Your task to perform on an android device: move an email to a new category in the gmail app Image 0: 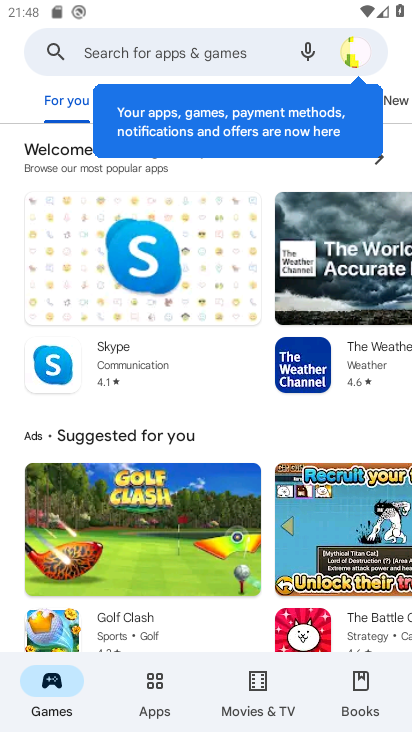
Step 0: press home button
Your task to perform on an android device: move an email to a new category in the gmail app Image 1: 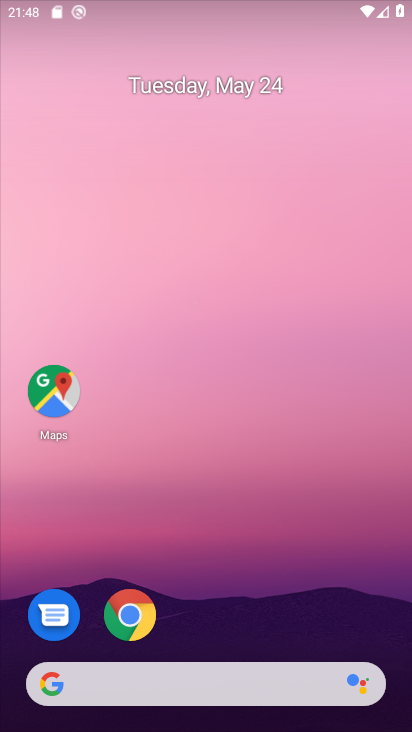
Step 1: drag from (215, 588) to (241, 258)
Your task to perform on an android device: move an email to a new category in the gmail app Image 2: 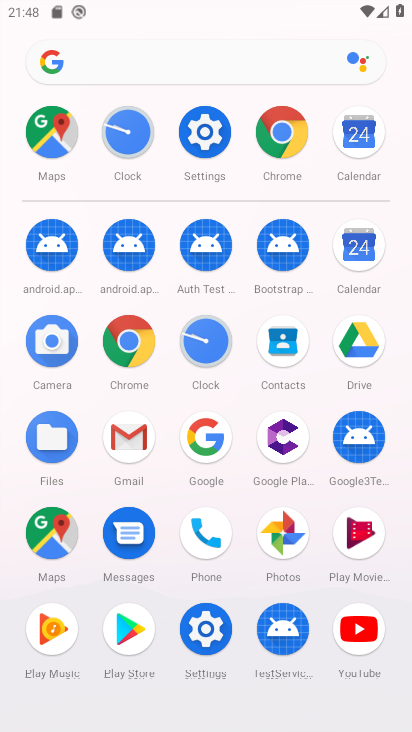
Step 2: click (142, 437)
Your task to perform on an android device: move an email to a new category in the gmail app Image 3: 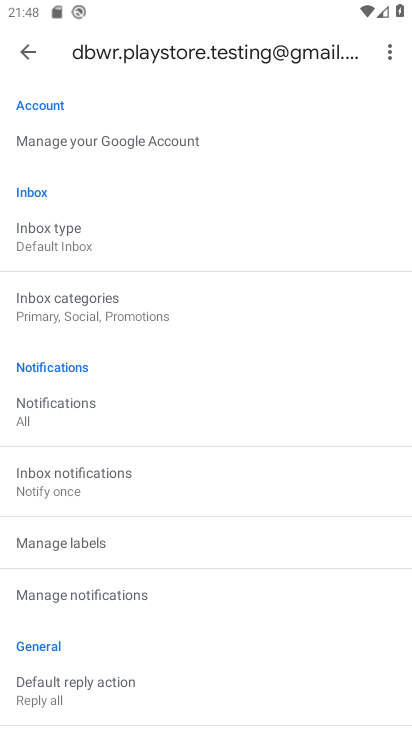
Step 3: click (20, 60)
Your task to perform on an android device: move an email to a new category in the gmail app Image 4: 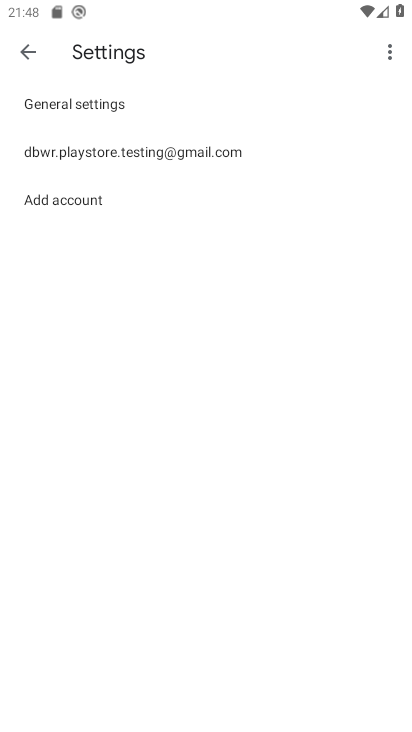
Step 4: click (18, 56)
Your task to perform on an android device: move an email to a new category in the gmail app Image 5: 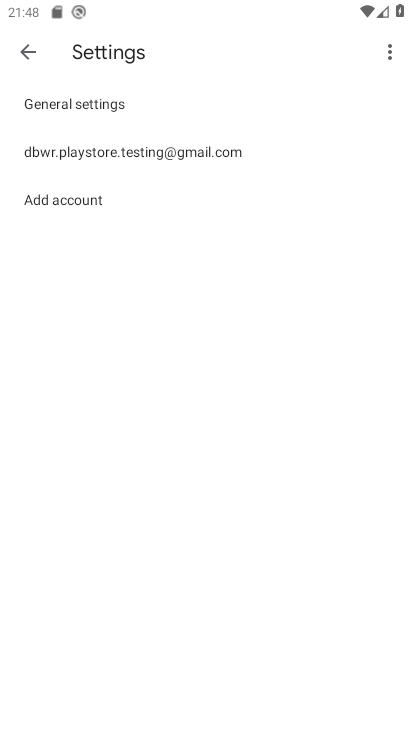
Step 5: click (18, 54)
Your task to perform on an android device: move an email to a new category in the gmail app Image 6: 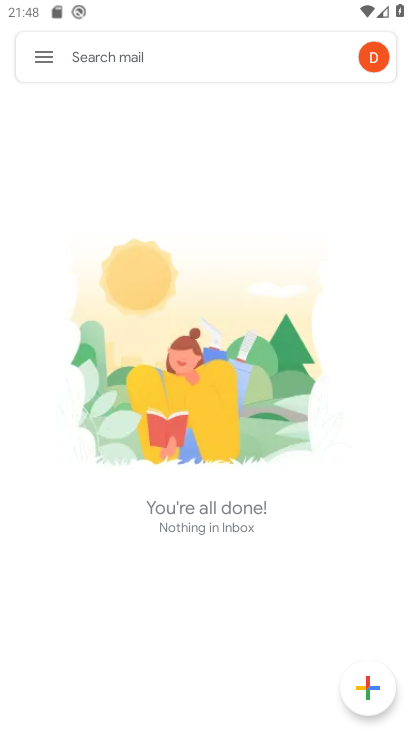
Step 6: click (28, 55)
Your task to perform on an android device: move an email to a new category in the gmail app Image 7: 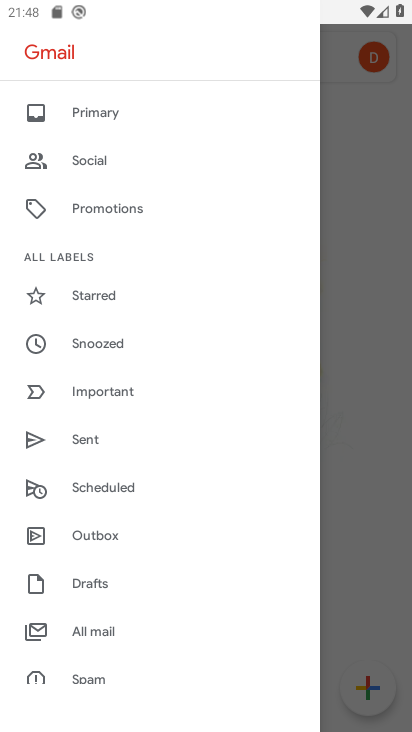
Step 7: click (105, 632)
Your task to perform on an android device: move an email to a new category in the gmail app Image 8: 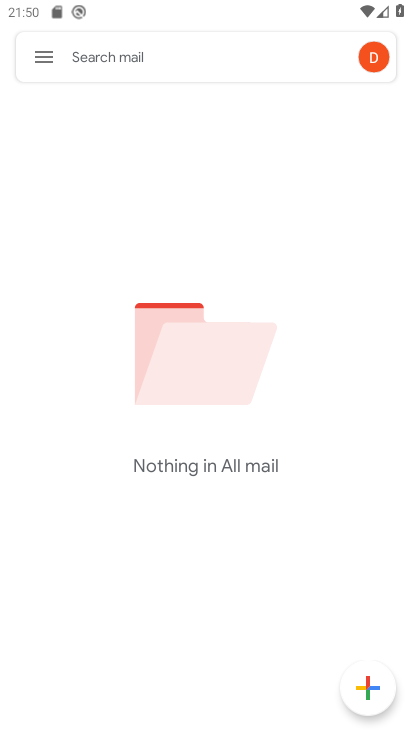
Step 8: task complete